Your task to perform on an android device: Go to Yahoo.com Image 0: 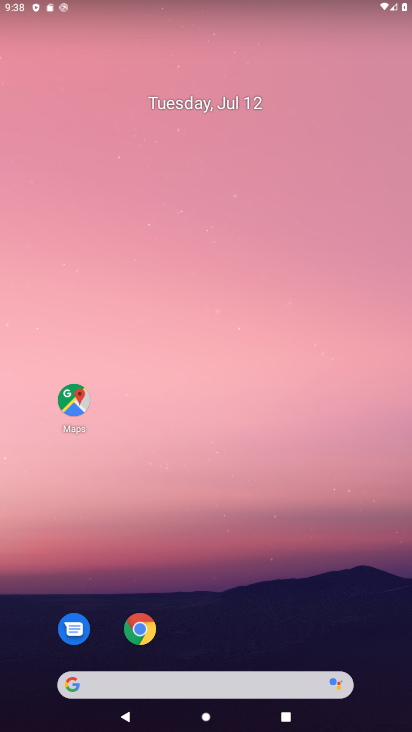
Step 0: drag from (235, 693) to (177, 13)
Your task to perform on an android device: Go to Yahoo.com Image 1: 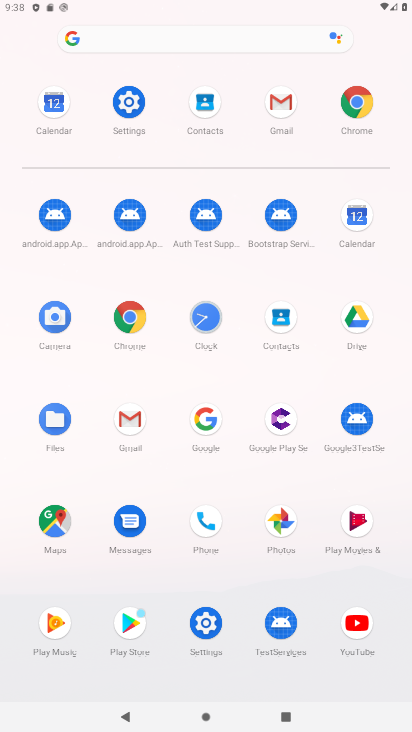
Step 1: click (125, 315)
Your task to perform on an android device: Go to Yahoo.com Image 2: 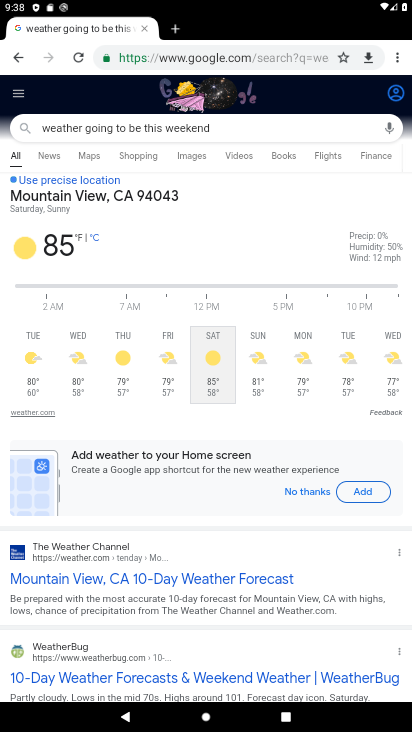
Step 2: click (229, 56)
Your task to perform on an android device: Go to Yahoo.com Image 3: 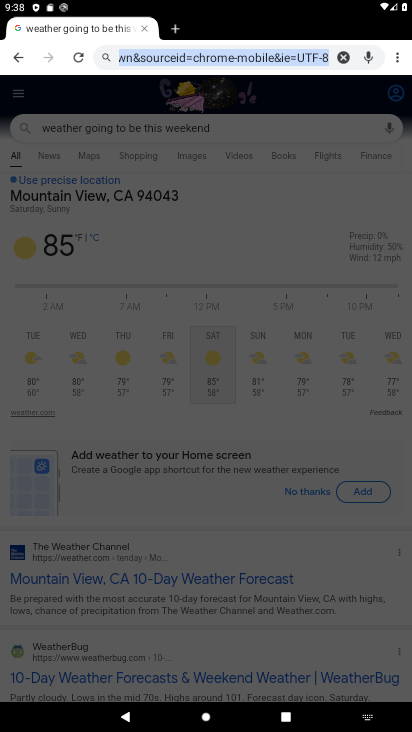
Step 3: type "yahoo.com"
Your task to perform on an android device: Go to Yahoo.com Image 4: 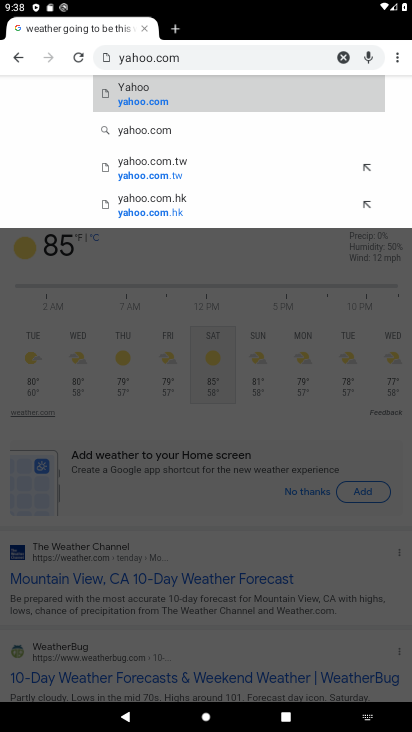
Step 4: click (151, 88)
Your task to perform on an android device: Go to Yahoo.com Image 5: 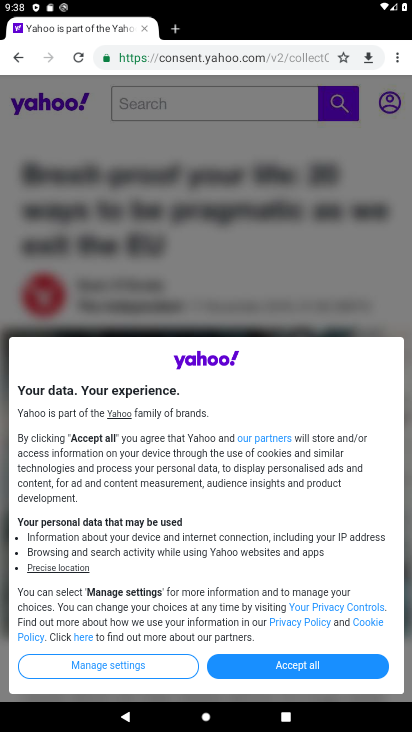
Step 5: task complete